Your task to perform on an android device: toggle airplane mode Image 0: 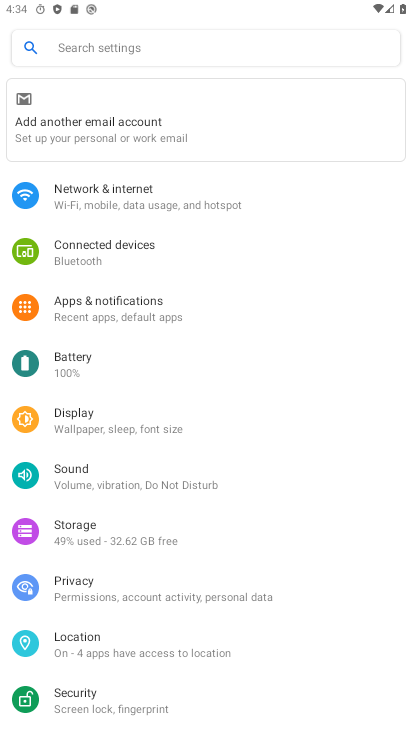
Step 0: click (155, 195)
Your task to perform on an android device: toggle airplane mode Image 1: 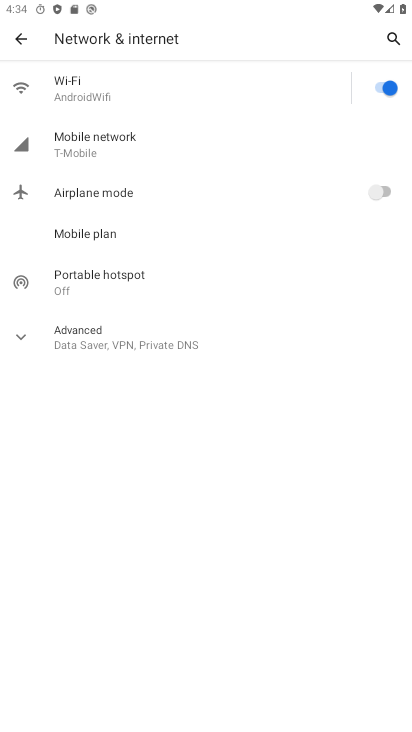
Step 1: click (90, 335)
Your task to perform on an android device: toggle airplane mode Image 2: 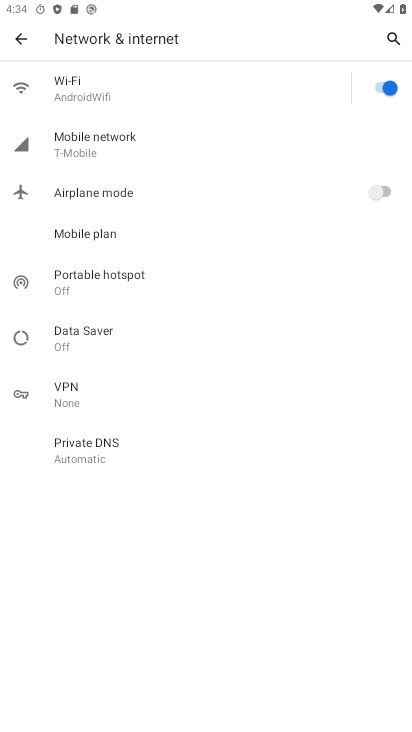
Step 2: click (383, 191)
Your task to perform on an android device: toggle airplane mode Image 3: 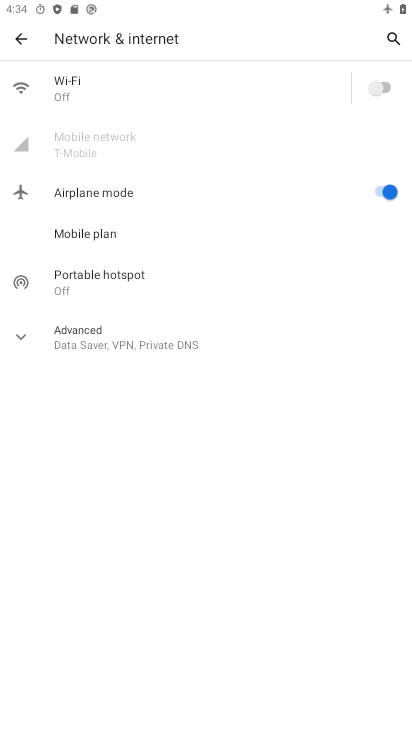
Step 3: task complete